Your task to perform on an android device: Open the stopwatch Image 0: 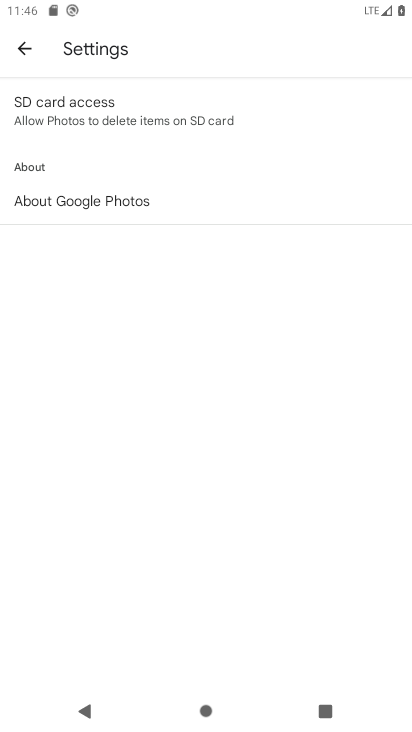
Step 0: press home button
Your task to perform on an android device: Open the stopwatch Image 1: 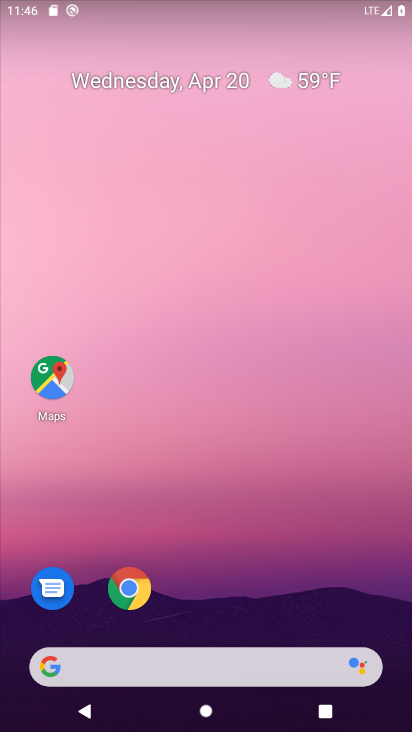
Step 1: drag from (254, 543) to (153, 33)
Your task to perform on an android device: Open the stopwatch Image 2: 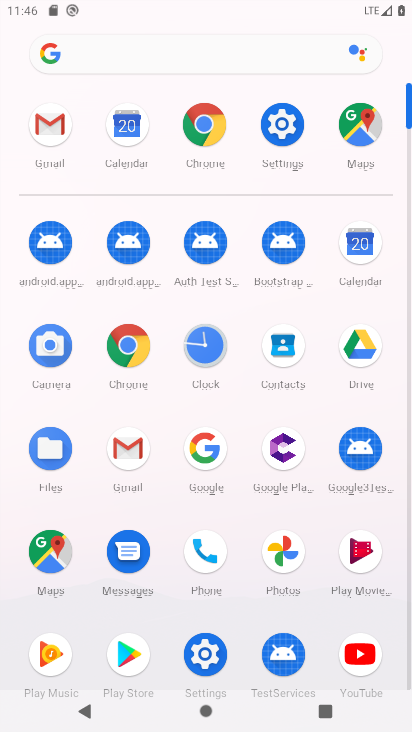
Step 2: click (213, 346)
Your task to perform on an android device: Open the stopwatch Image 3: 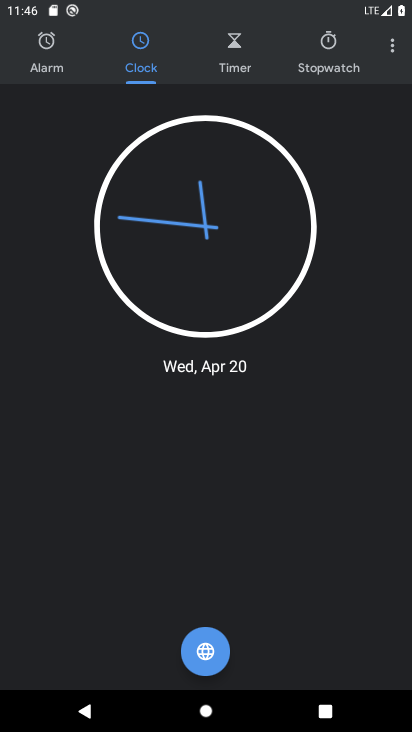
Step 3: click (319, 42)
Your task to perform on an android device: Open the stopwatch Image 4: 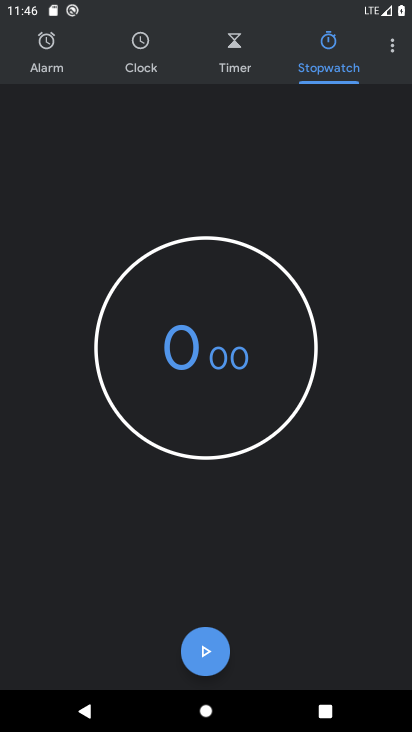
Step 4: task complete